Your task to perform on an android device: turn off improve location accuracy Image 0: 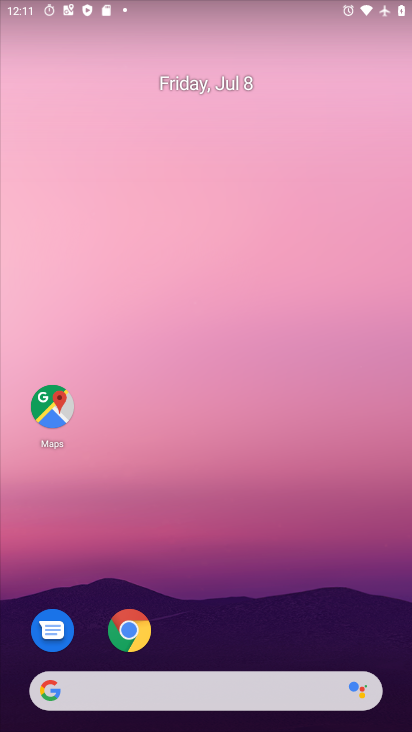
Step 0: drag from (223, 631) to (191, 183)
Your task to perform on an android device: turn off improve location accuracy Image 1: 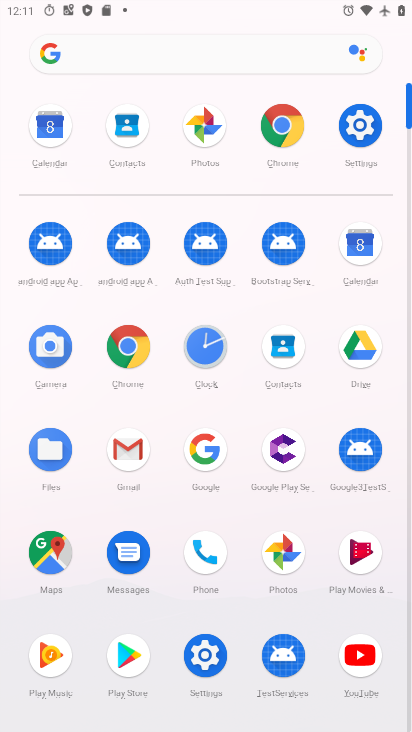
Step 1: click (357, 111)
Your task to perform on an android device: turn off improve location accuracy Image 2: 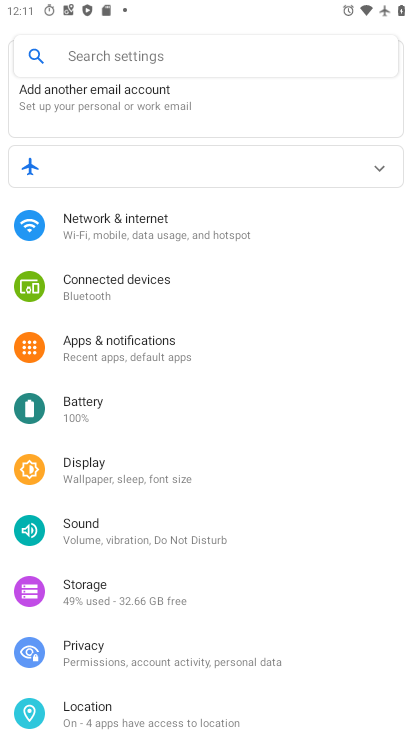
Step 2: click (125, 707)
Your task to perform on an android device: turn off improve location accuracy Image 3: 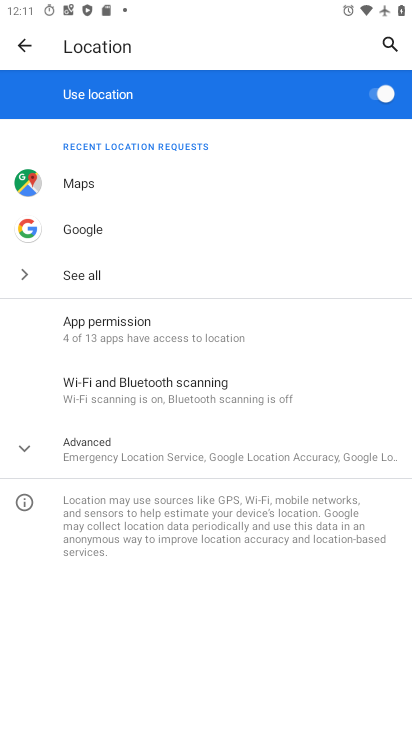
Step 3: click (367, 83)
Your task to perform on an android device: turn off improve location accuracy Image 4: 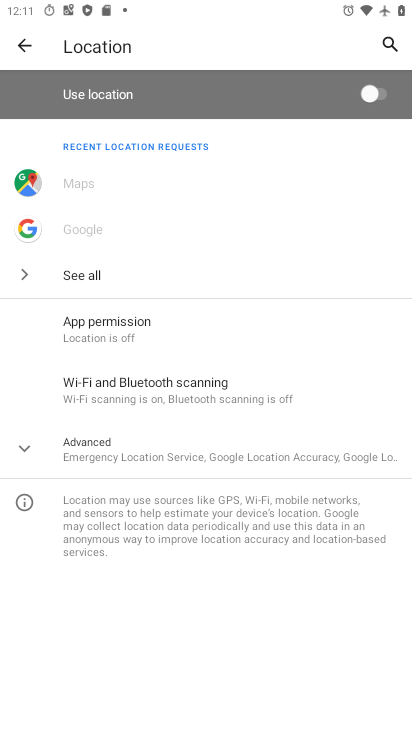
Step 4: task complete